Your task to perform on an android device: Open display settings Image 0: 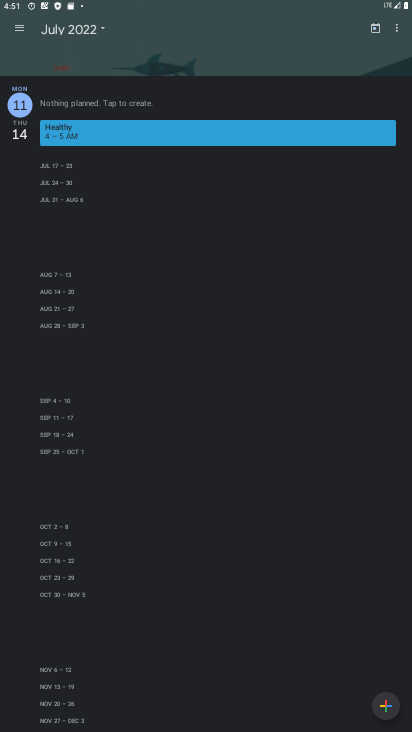
Step 0: press home button
Your task to perform on an android device: Open display settings Image 1: 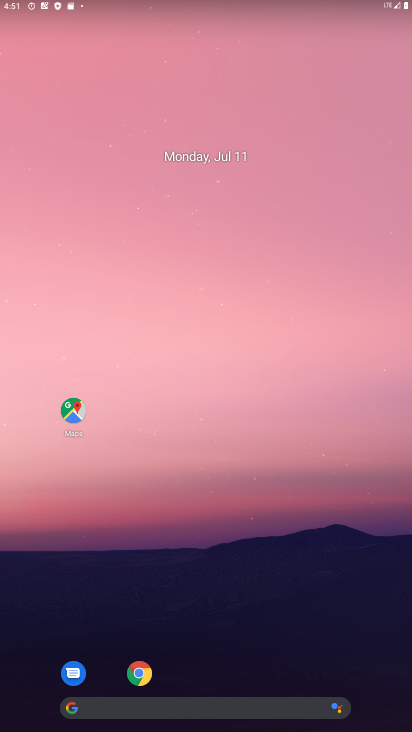
Step 1: drag from (210, 700) to (228, 70)
Your task to perform on an android device: Open display settings Image 2: 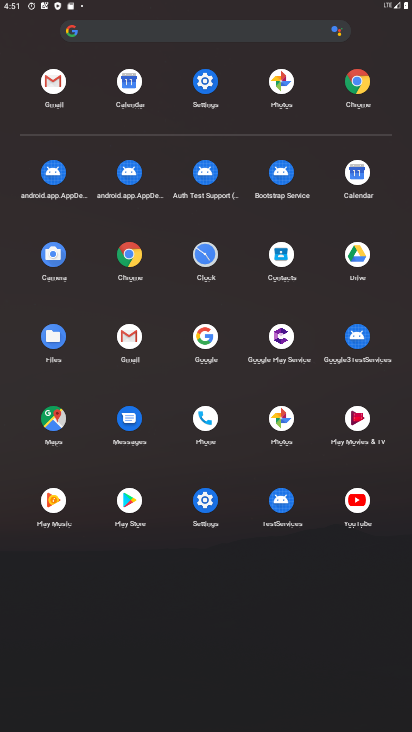
Step 2: click (205, 82)
Your task to perform on an android device: Open display settings Image 3: 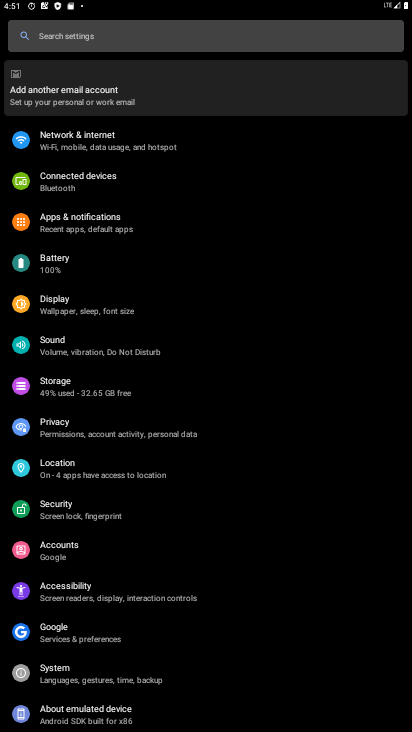
Step 3: click (93, 304)
Your task to perform on an android device: Open display settings Image 4: 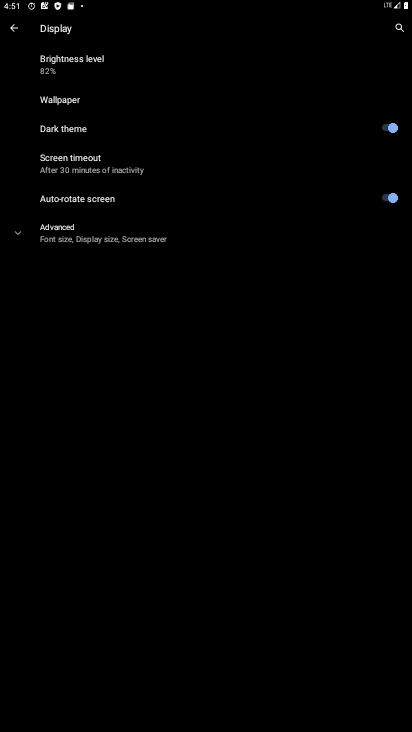
Step 4: task complete